Your task to perform on an android device: Search for Mexican restaurants on Maps Image 0: 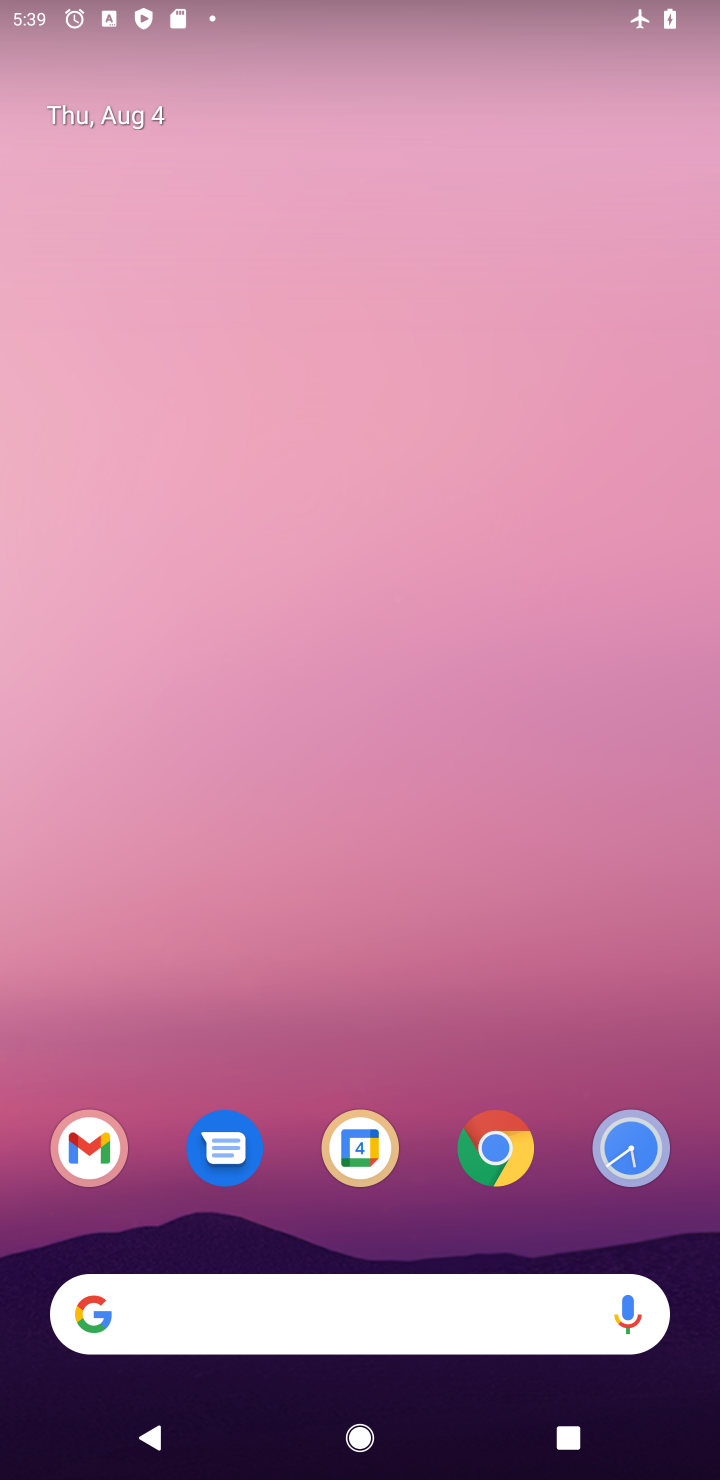
Step 0: drag from (553, 1236) to (527, 217)
Your task to perform on an android device: Search for Mexican restaurants on Maps Image 1: 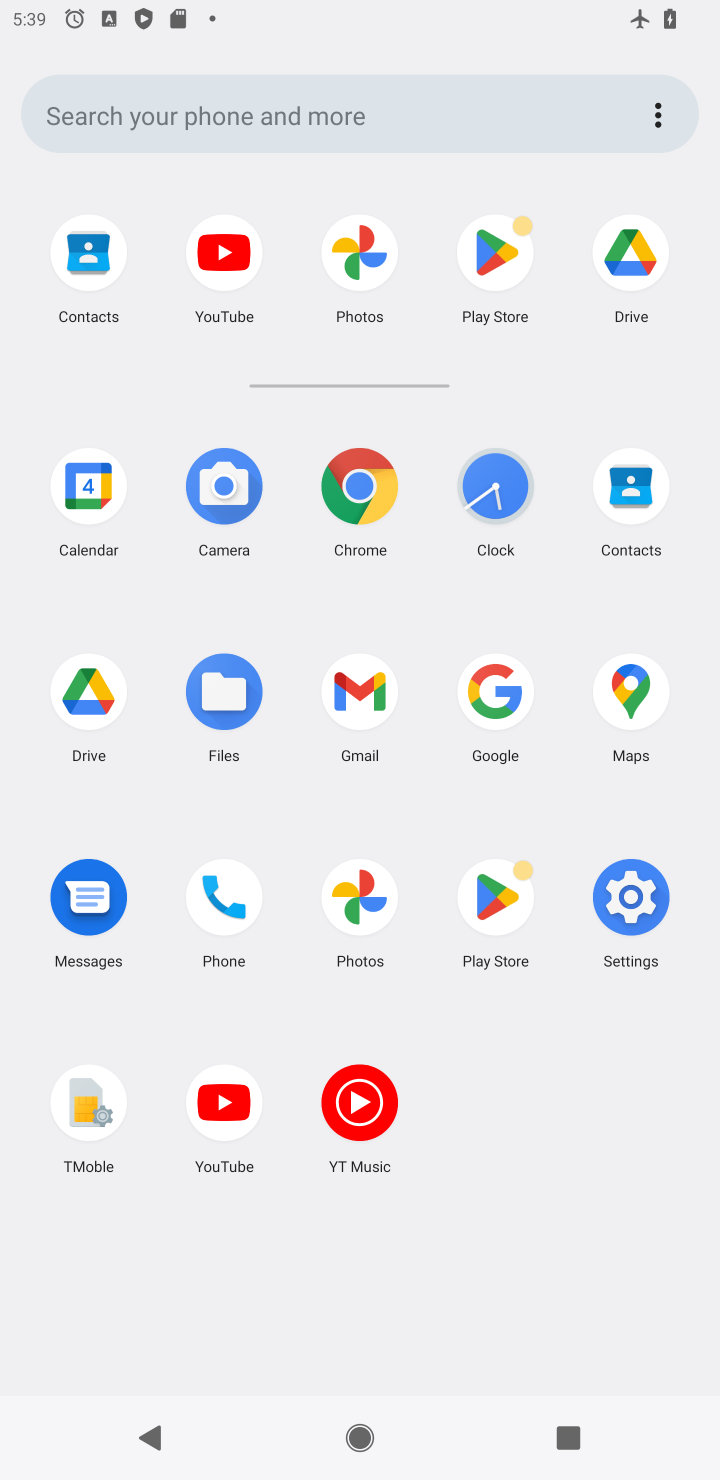
Step 1: click (631, 683)
Your task to perform on an android device: Search for Mexican restaurants on Maps Image 2: 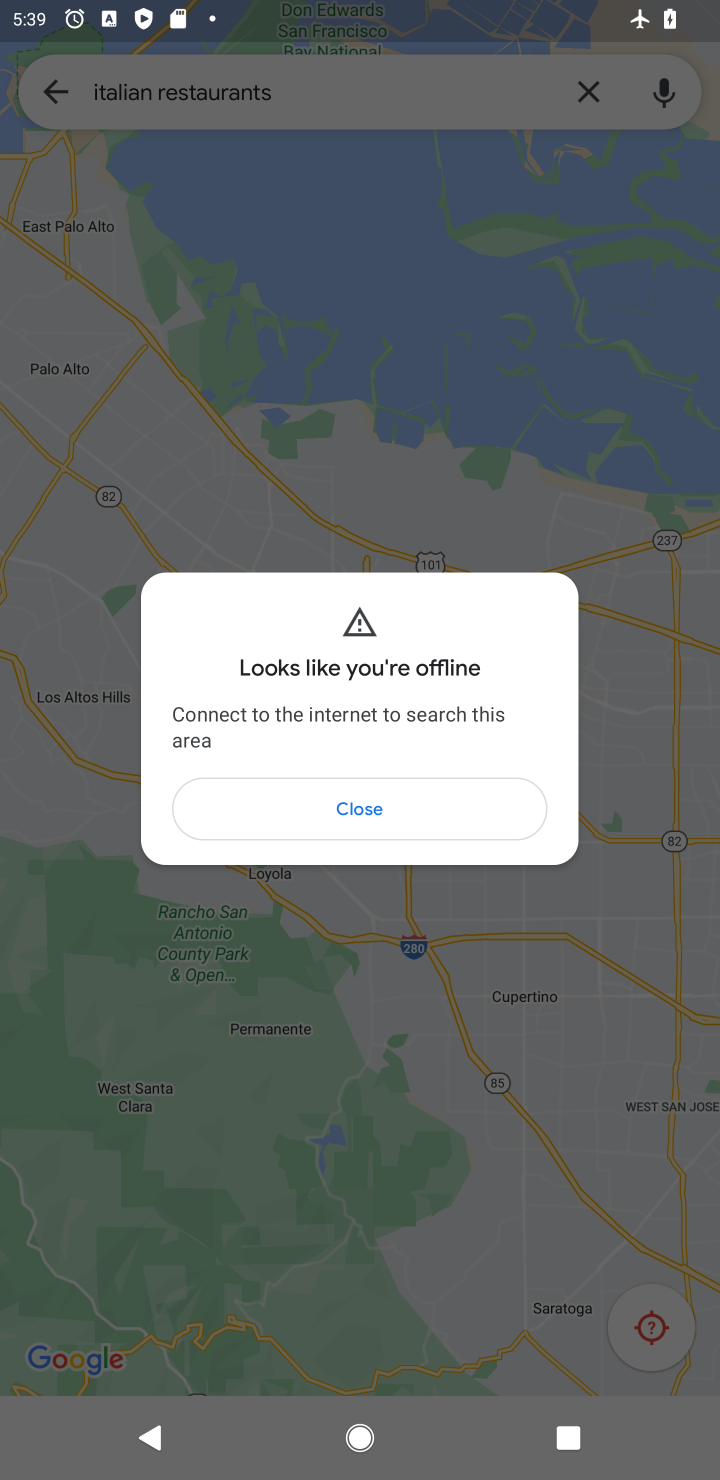
Step 2: click (580, 90)
Your task to perform on an android device: Search for Mexican restaurants on Maps Image 3: 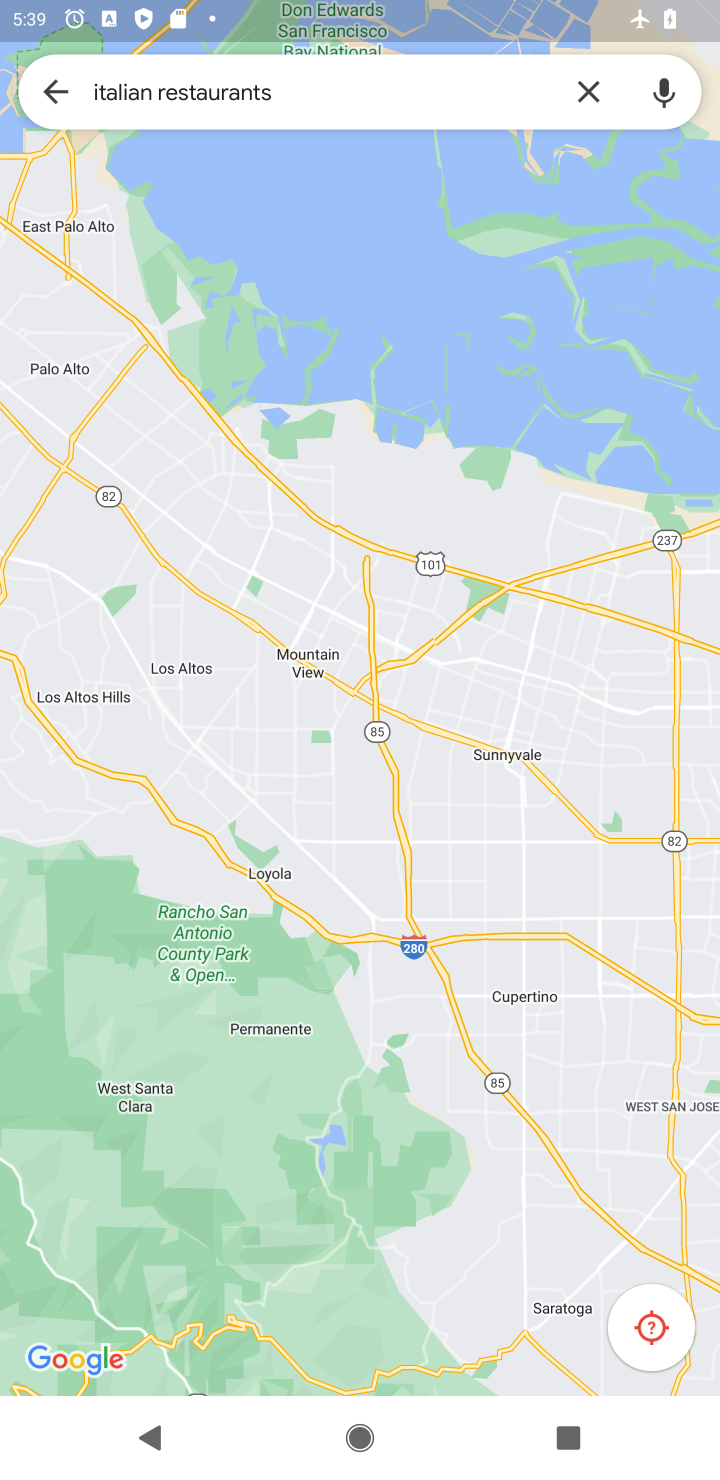
Step 3: click (352, 805)
Your task to perform on an android device: Search for Mexican restaurants on Maps Image 4: 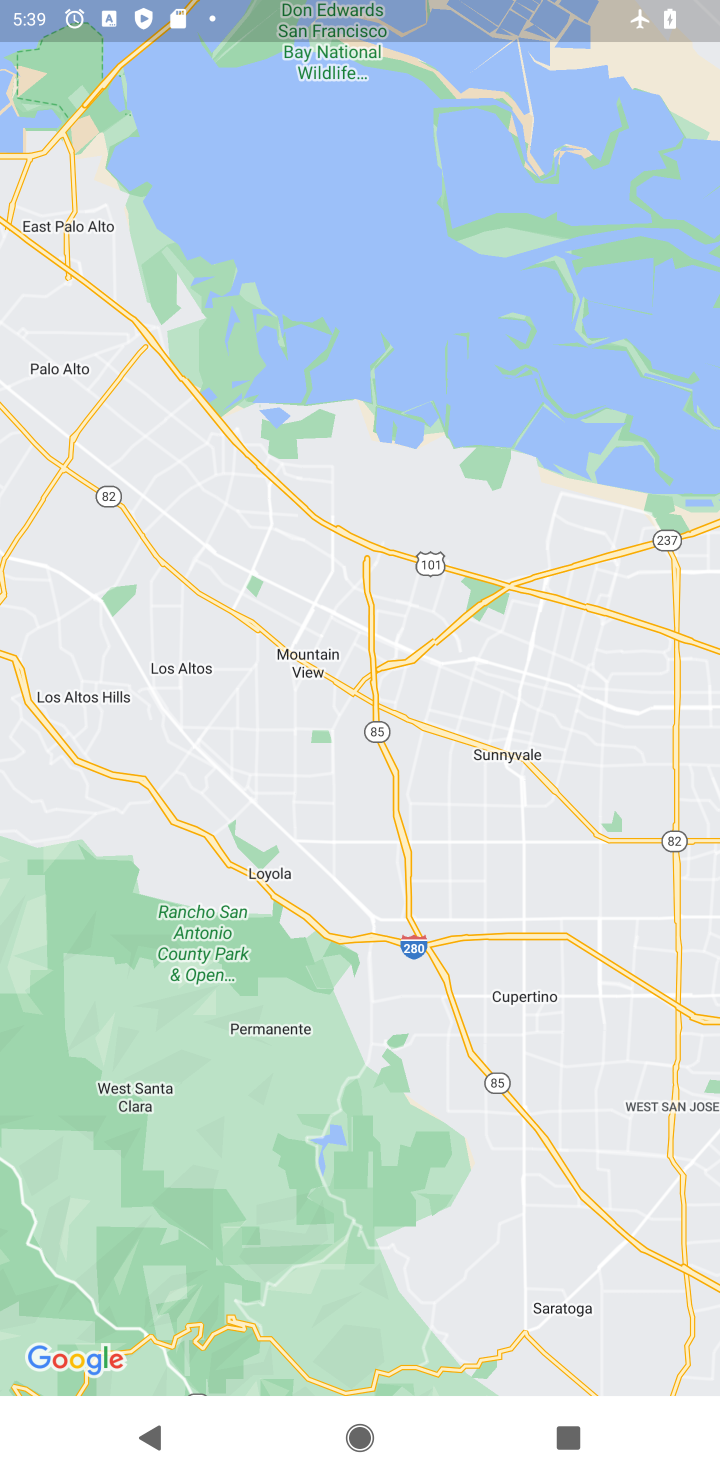
Step 4: click (586, 75)
Your task to perform on an android device: Search for Mexican restaurants on Maps Image 5: 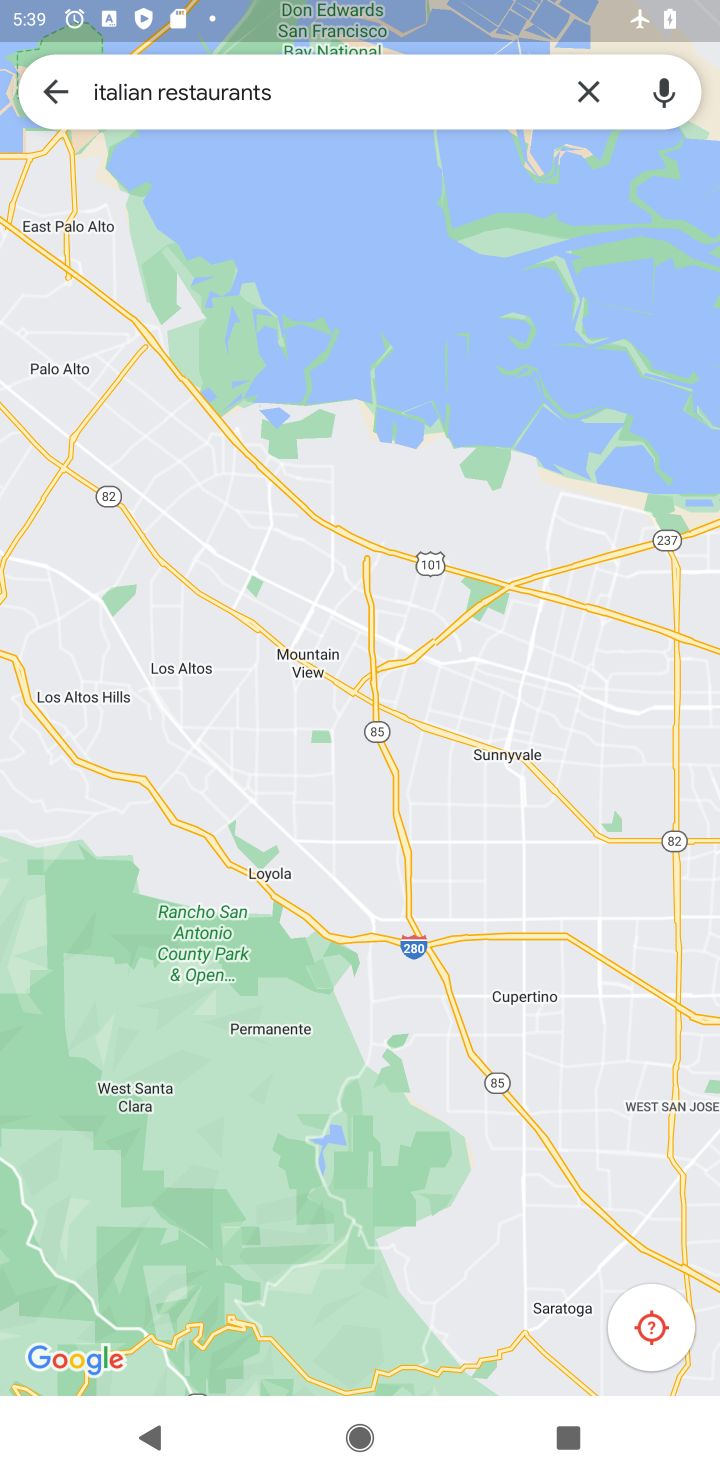
Step 5: click (586, 81)
Your task to perform on an android device: Search for Mexican restaurants on Maps Image 6: 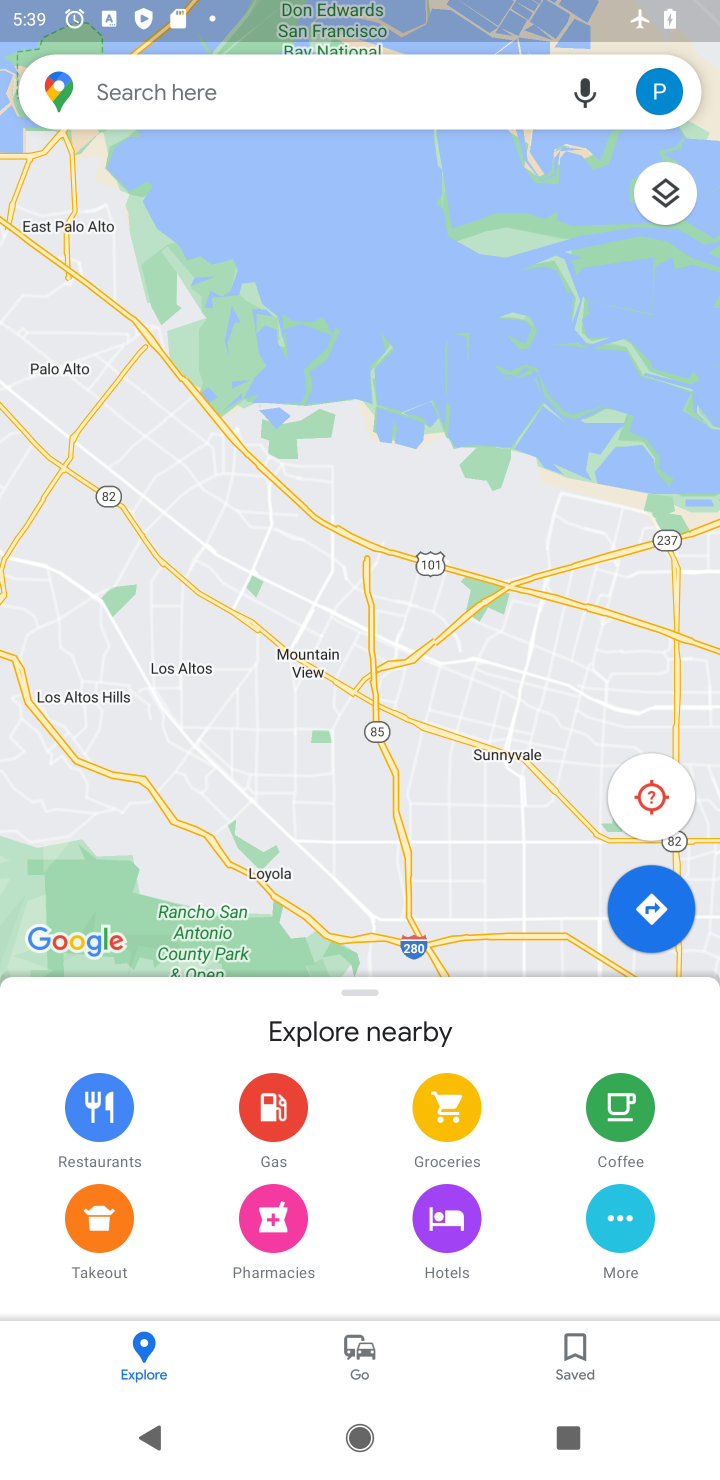
Step 6: click (171, 96)
Your task to perform on an android device: Search for Mexican restaurants on Maps Image 7: 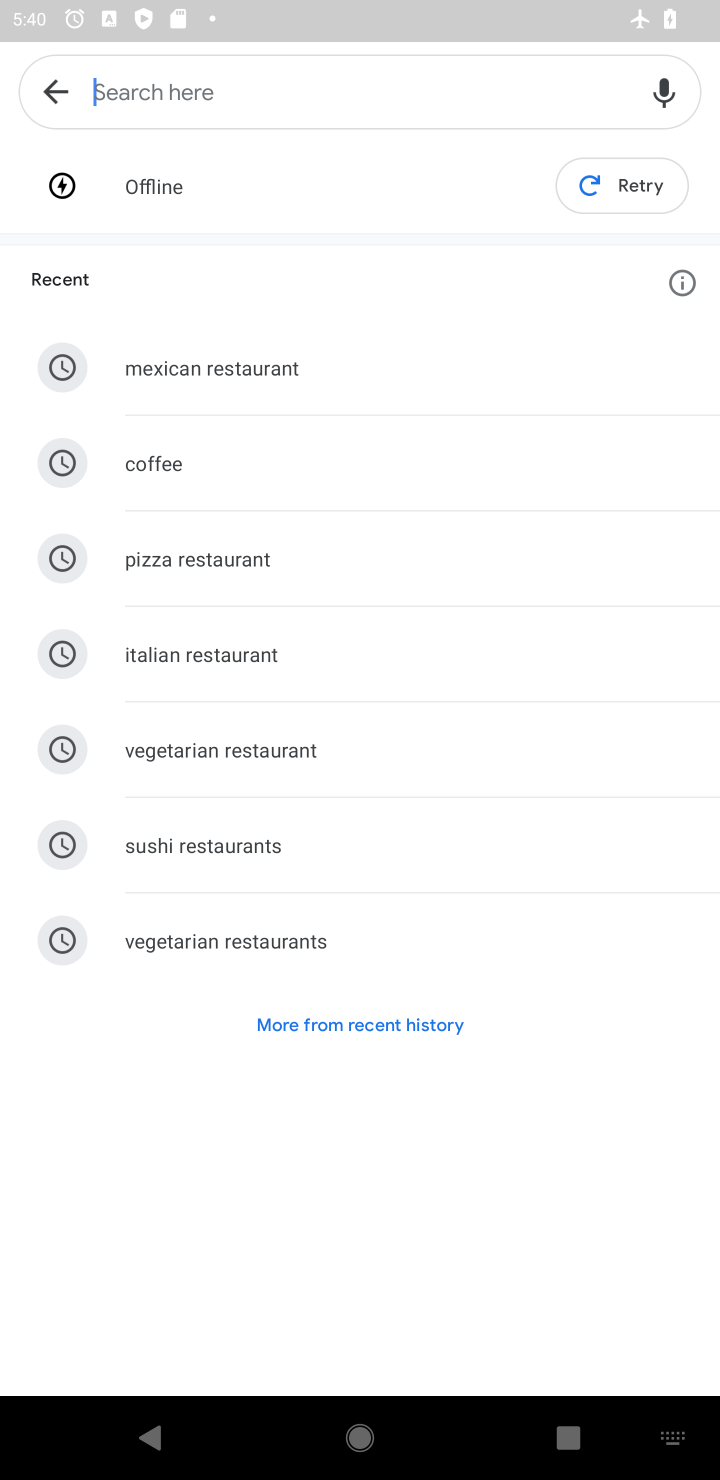
Step 7: type "mexican restaurants"
Your task to perform on an android device: Search for Mexican restaurants on Maps Image 8: 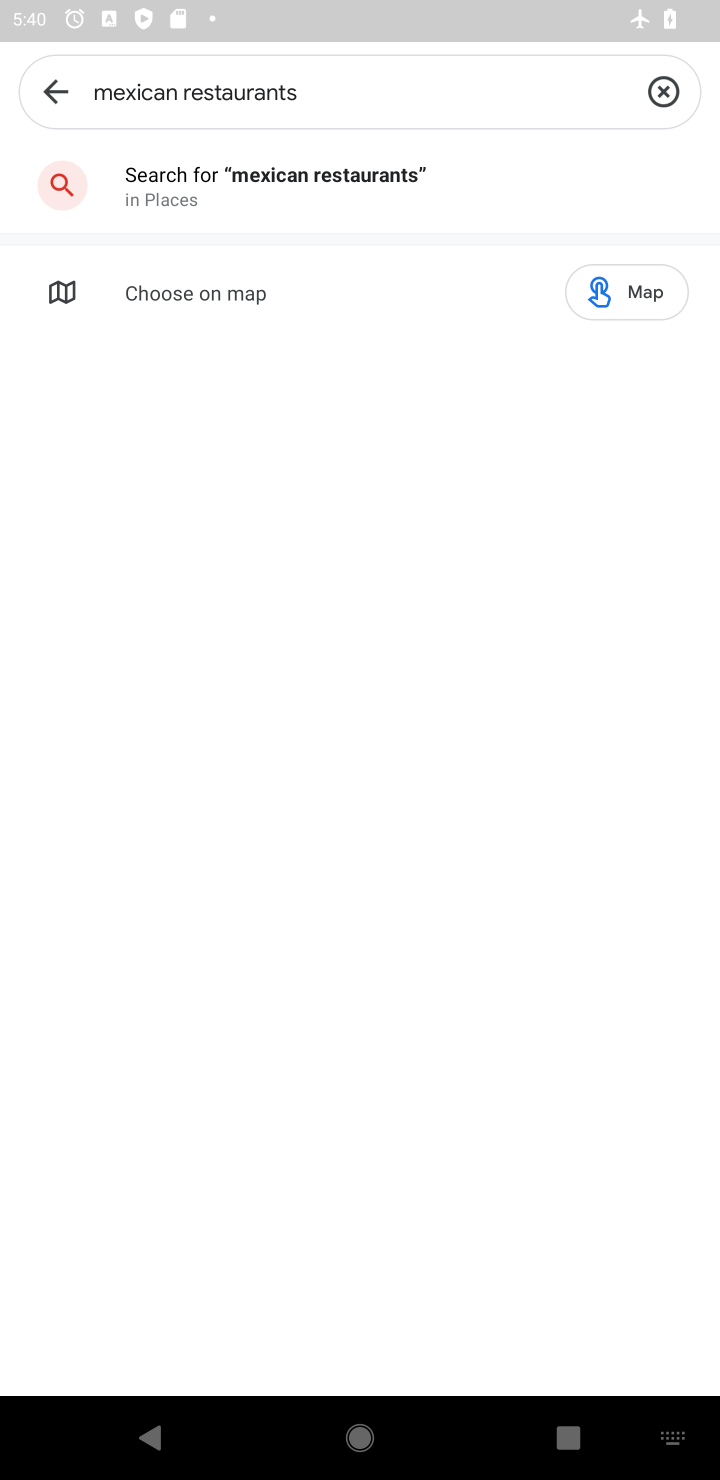
Step 8: click (309, 169)
Your task to perform on an android device: Search for Mexican restaurants on Maps Image 9: 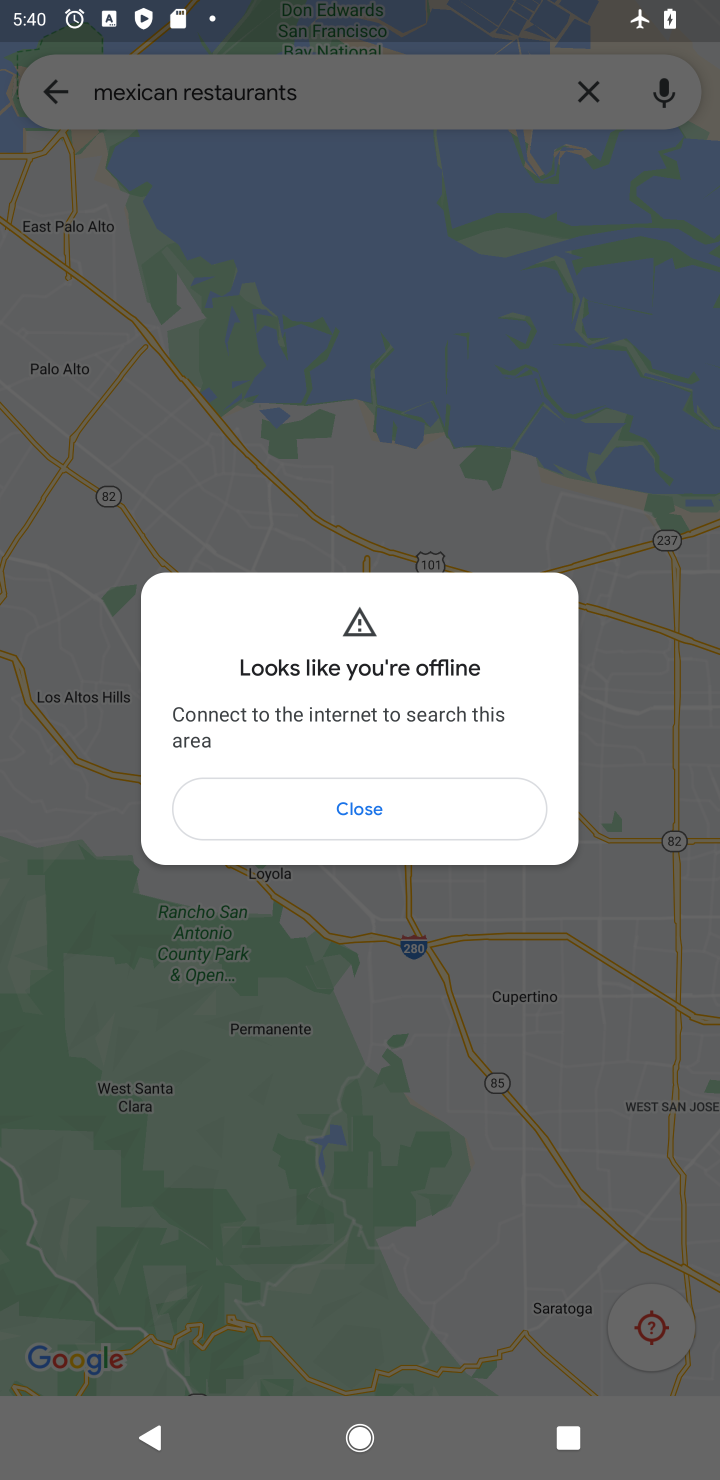
Step 9: click (367, 814)
Your task to perform on an android device: Search for Mexican restaurants on Maps Image 10: 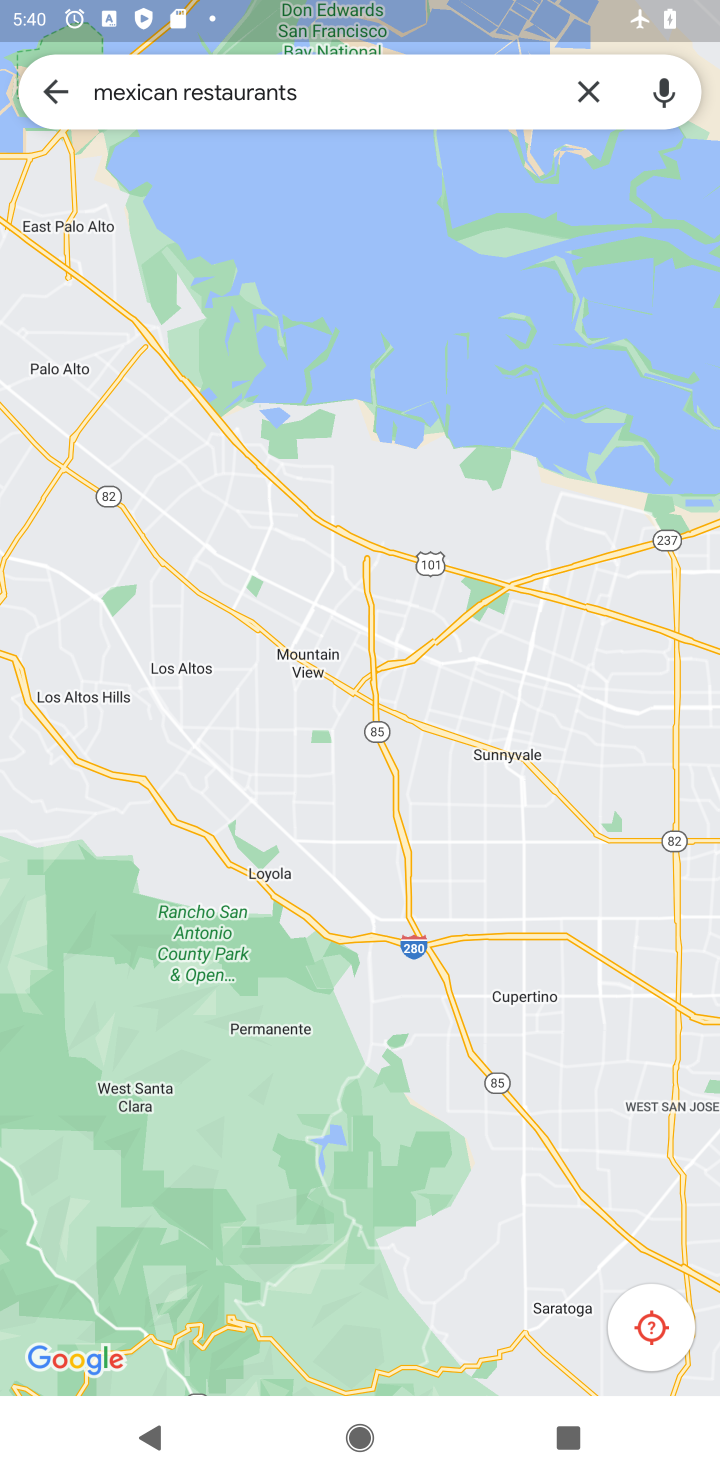
Step 10: task complete